Your task to perform on an android device: Open sound settings Image 0: 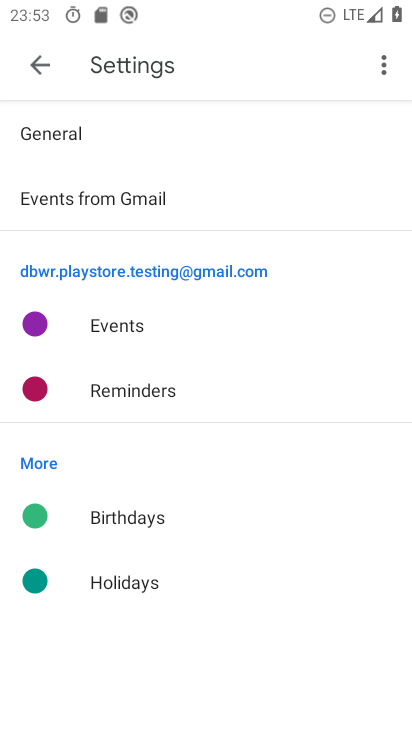
Step 0: press home button
Your task to perform on an android device: Open sound settings Image 1: 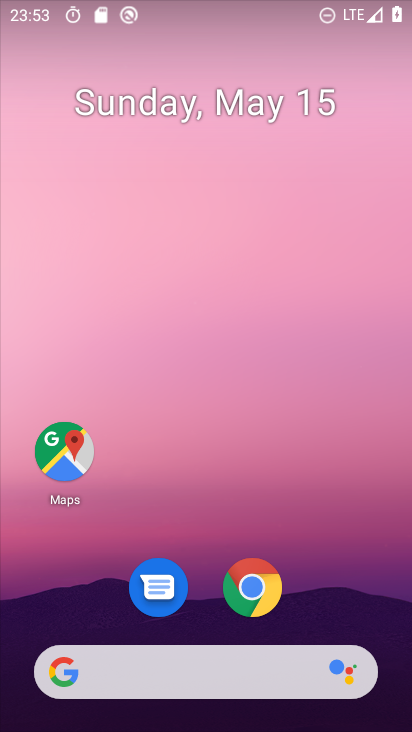
Step 1: drag from (205, 602) to (216, 157)
Your task to perform on an android device: Open sound settings Image 2: 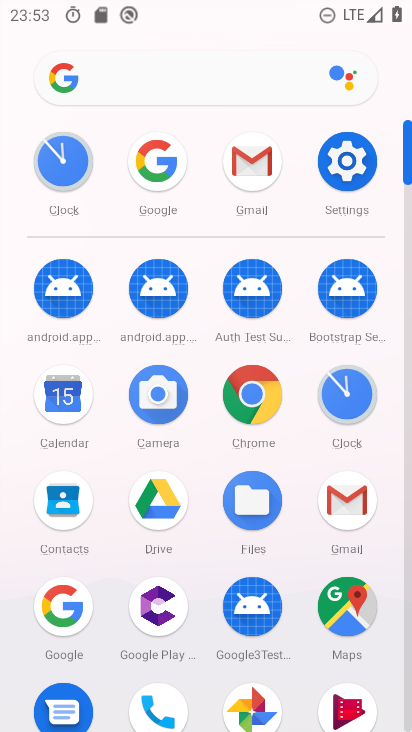
Step 2: click (351, 164)
Your task to perform on an android device: Open sound settings Image 3: 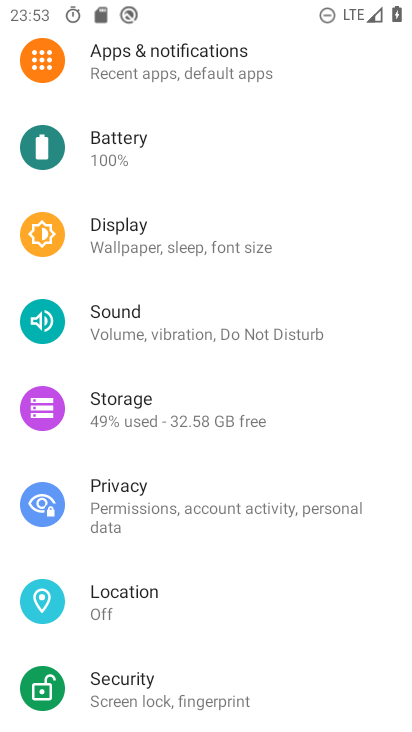
Step 3: click (166, 313)
Your task to perform on an android device: Open sound settings Image 4: 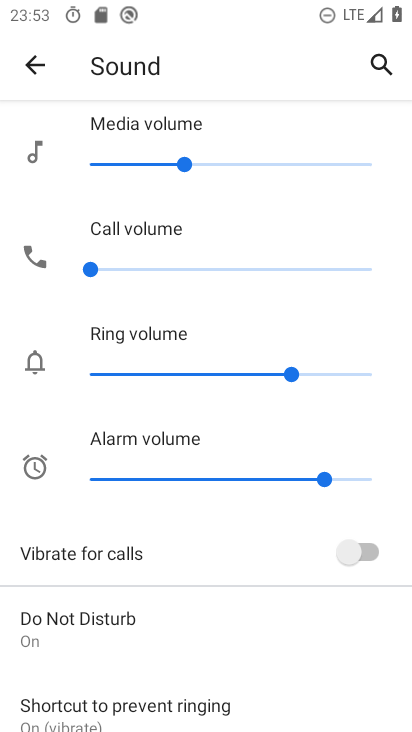
Step 4: task complete